Your task to perform on an android device: Open the stopwatch Image 0: 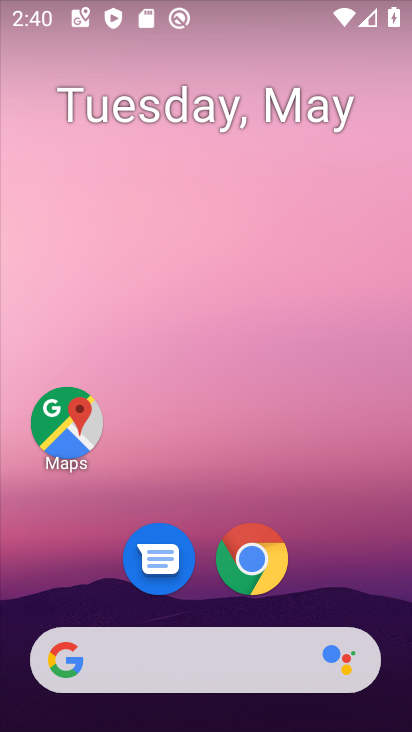
Step 0: click (320, 77)
Your task to perform on an android device: Open the stopwatch Image 1: 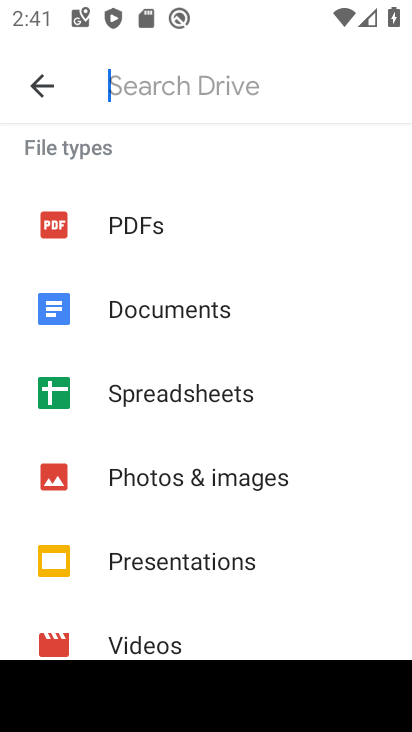
Step 1: press home button
Your task to perform on an android device: Open the stopwatch Image 2: 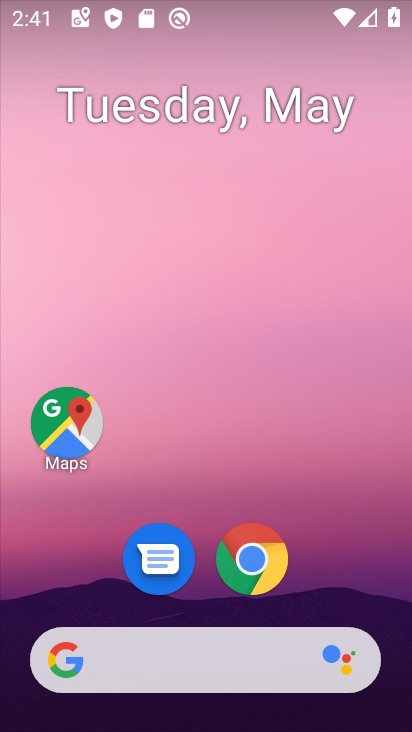
Step 2: drag from (221, 643) to (351, 109)
Your task to perform on an android device: Open the stopwatch Image 3: 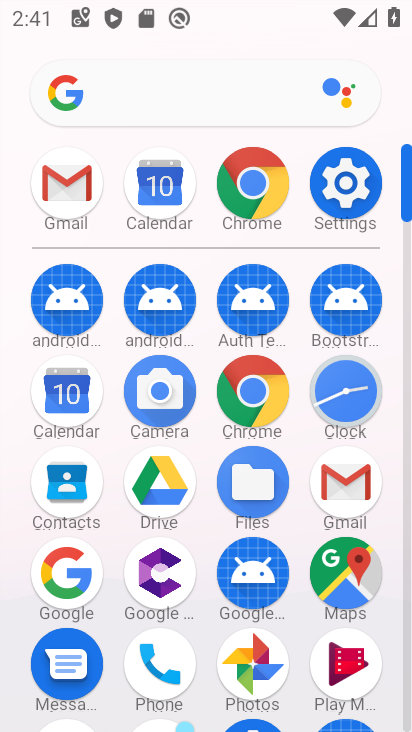
Step 3: click (339, 394)
Your task to perform on an android device: Open the stopwatch Image 4: 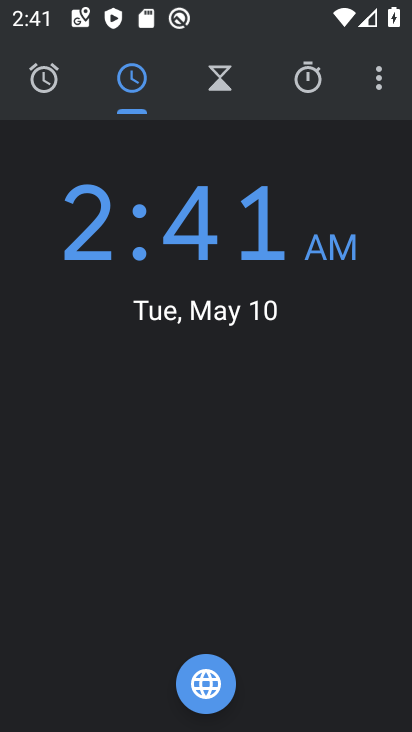
Step 4: click (310, 76)
Your task to perform on an android device: Open the stopwatch Image 5: 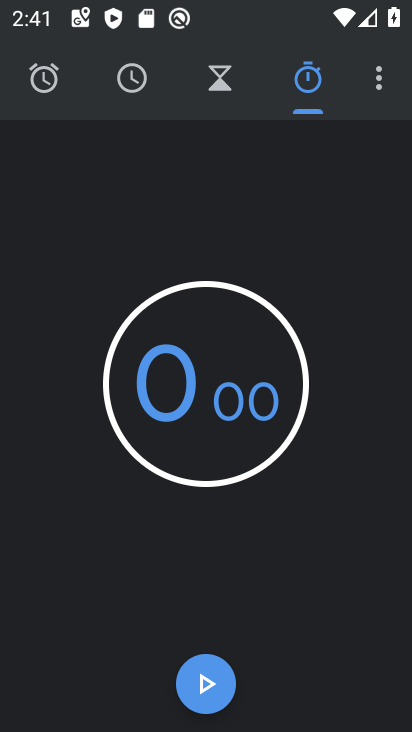
Step 5: task complete